Your task to perform on an android device: Open Amazon Image 0: 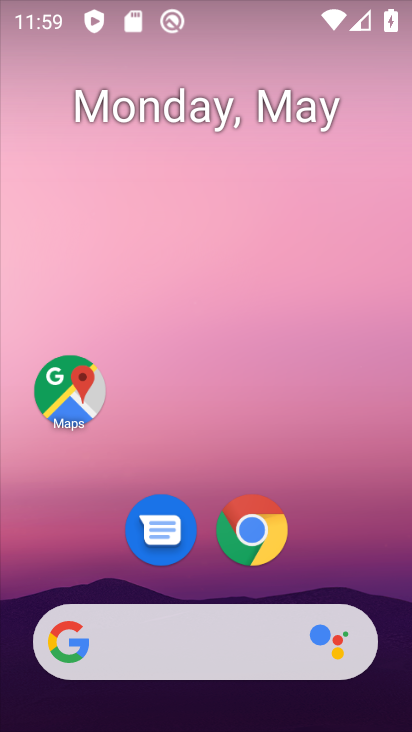
Step 0: drag from (330, 496) to (269, 29)
Your task to perform on an android device: Open Amazon Image 1: 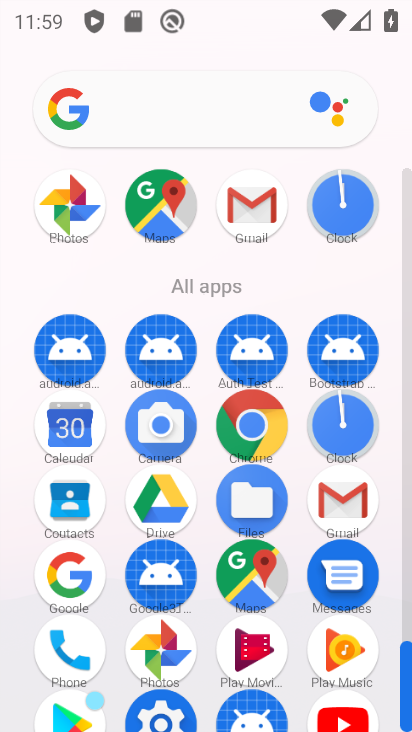
Step 1: drag from (13, 557) to (42, 210)
Your task to perform on an android device: Open Amazon Image 2: 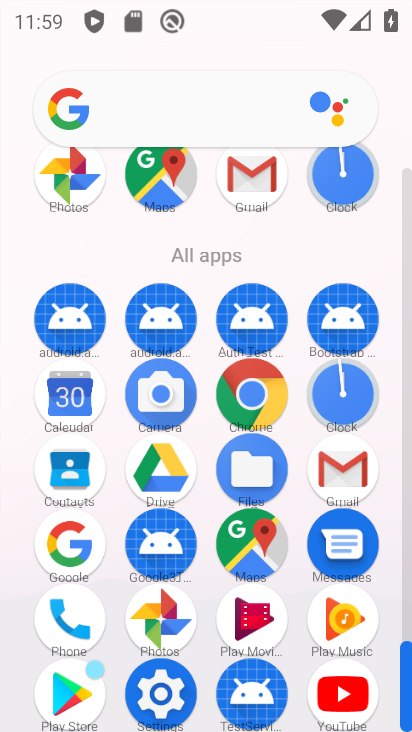
Step 2: click (247, 385)
Your task to perform on an android device: Open Amazon Image 3: 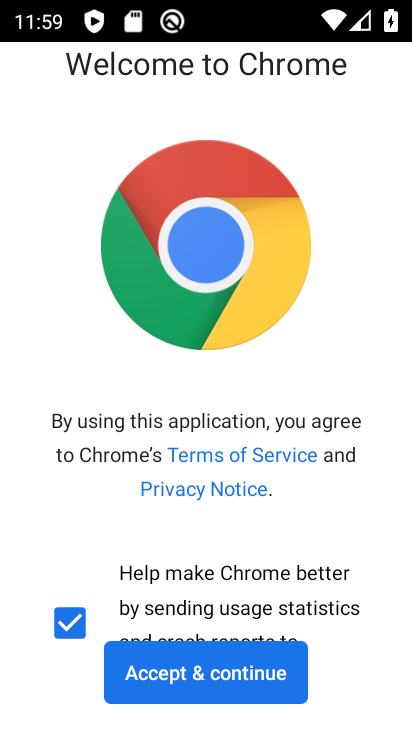
Step 3: click (257, 669)
Your task to perform on an android device: Open Amazon Image 4: 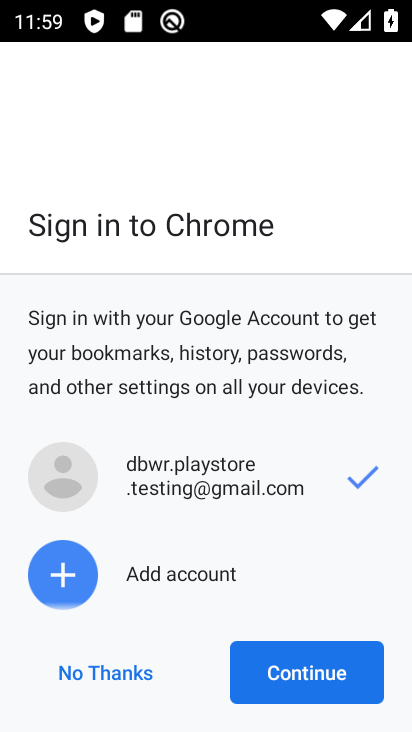
Step 4: click (263, 669)
Your task to perform on an android device: Open Amazon Image 5: 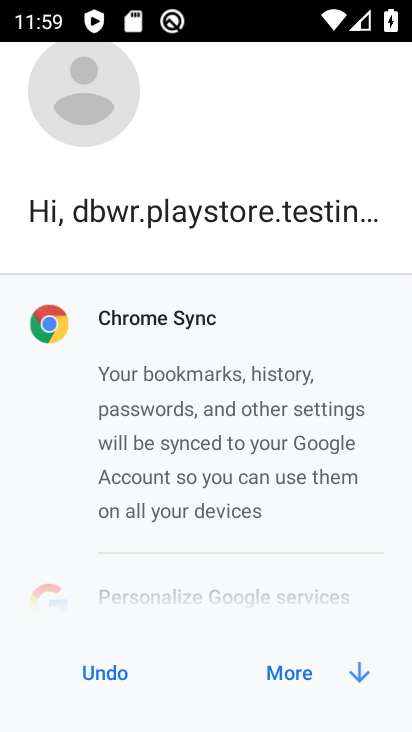
Step 5: click (287, 667)
Your task to perform on an android device: Open Amazon Image 6: 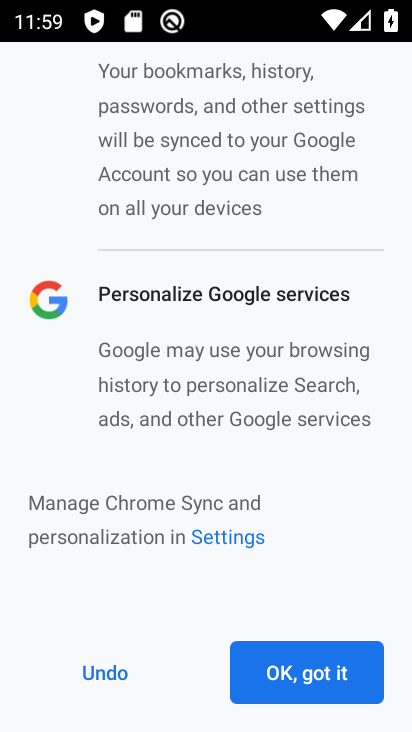
Step 6: click (287, 667)
Your task to perform on an android device: Open Amazon Image 7: 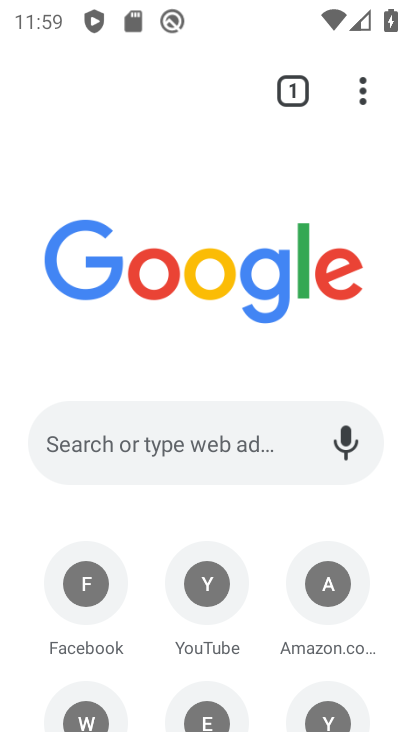
Step 7: click (167, 93)
Your task to perform on an android device: Open Amazon Image 8: 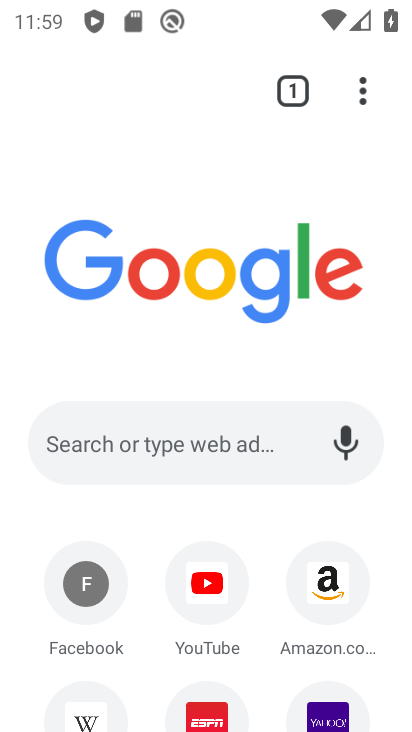
Step 8: click (171, 434)
Your task to perform on an android device: Open Amazon Image 9: 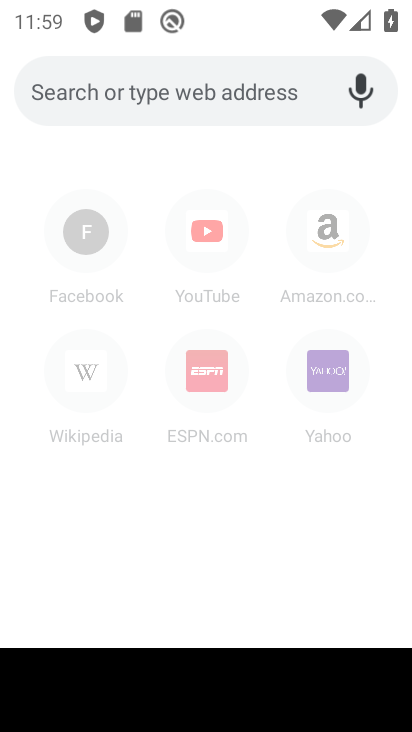
Step 9: click (324, 235)
Your task to perform on an android device: Open Amazon Image 10: 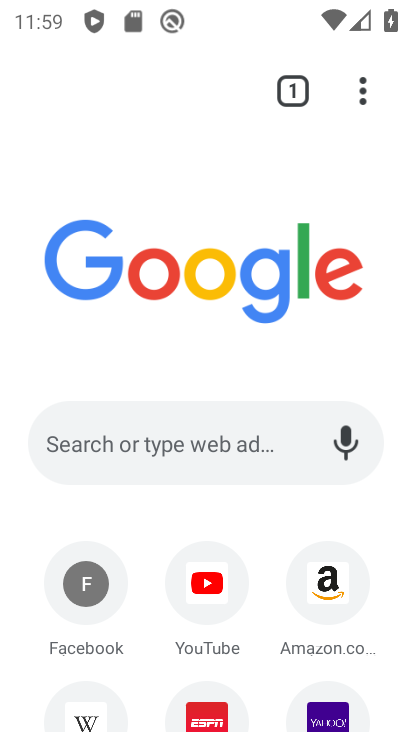
Step 10: click (326, 566)
Your task to perform on an android device: Open Amazon Image 11: 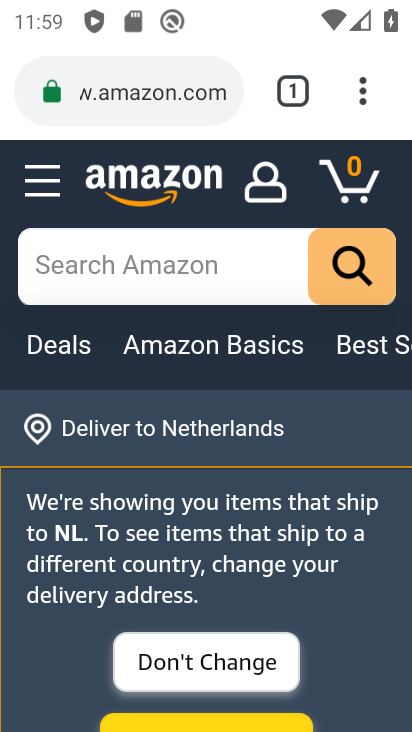
Step 11: task complete